Your task to perform on an android device: Open sound settings Image 0: 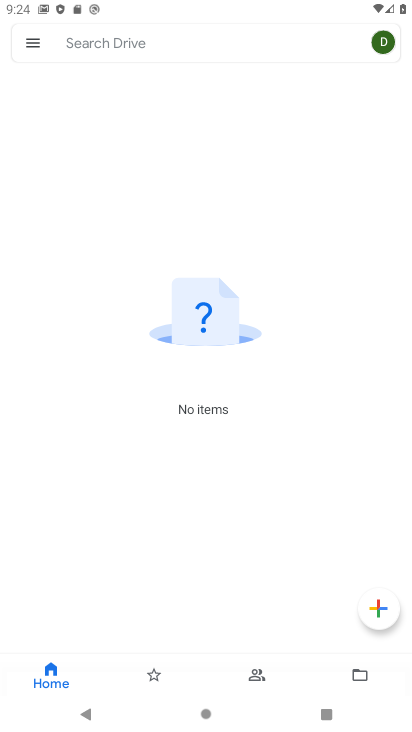
Step 0: press home button
Your task to perform on an android device: Open sound settings Image 1: 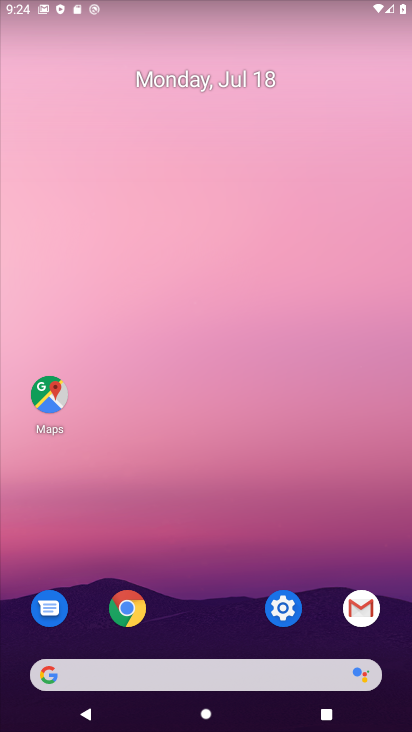
Step 1: click (293, 598)
Your task to perform on an android device: Open sound settings Image 2: 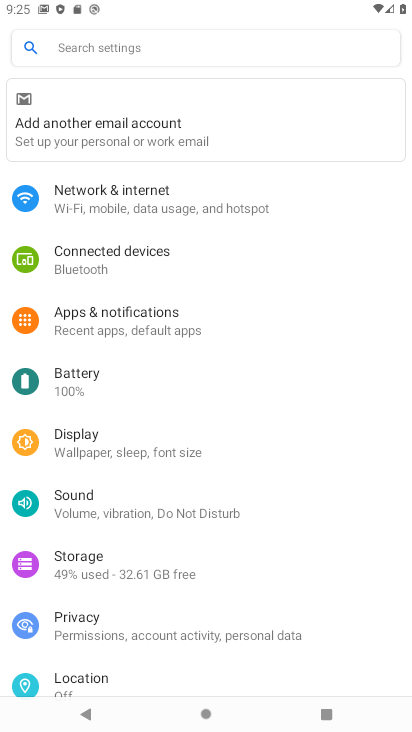
Step 2: click (89, 510)
Your task to perform on an android device: Open sound settings Image 3: 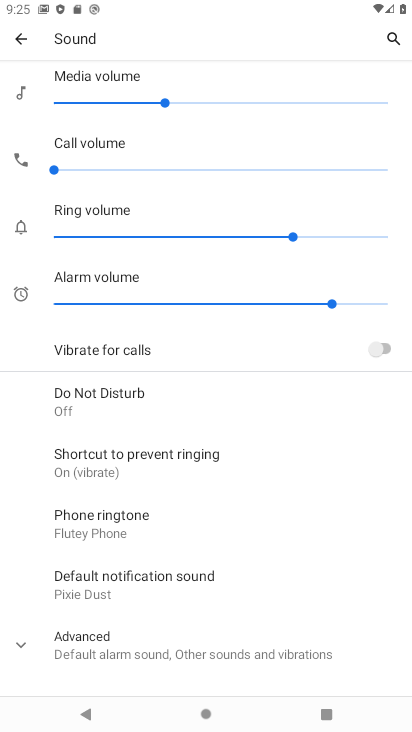
Step 3: task complete